Your task to perform on an android device: clear all cookies in the chrome app Image 0: 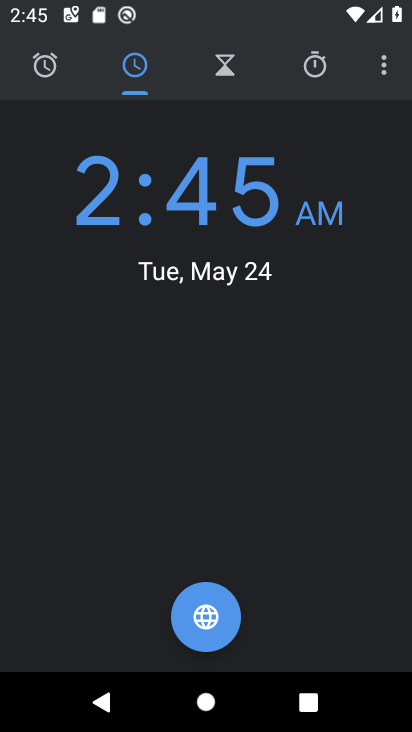
Step 0: press home button
Your task to perform on an android device: clear all cookies in the chrome app Image 1: 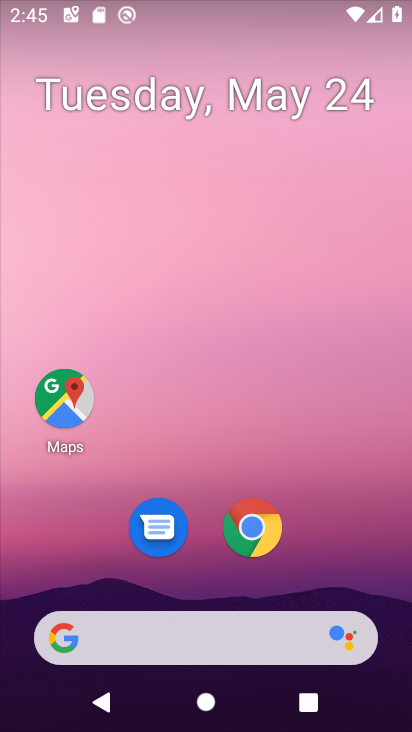
Step 1: click (257, 529)
Your task to perform on an android device: clear all cookies in the chrome app Image 2: 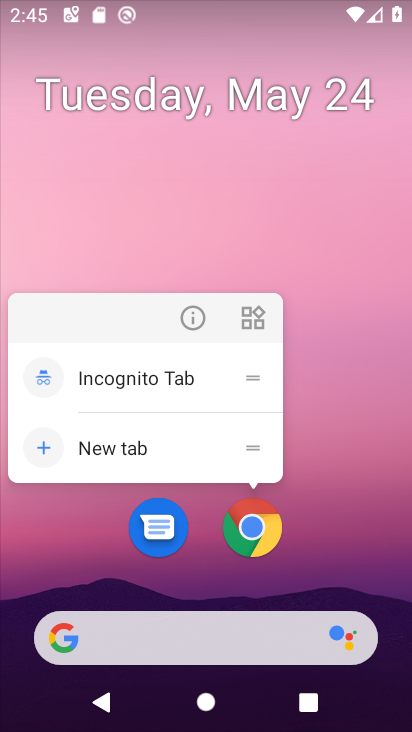
Step 2: click (321, 537)
Your task to perform on an android device: clear all cookies in the chrome app Image 3: 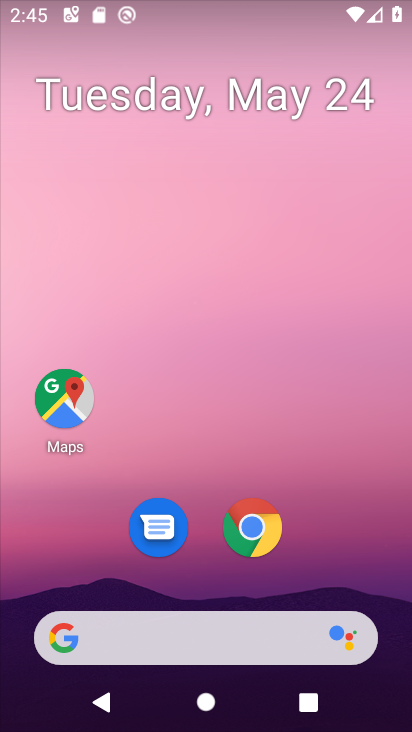
Step 3: click (256, 532)
Your task to perform on an android device: clear all cookies in the chrome app Image 4: 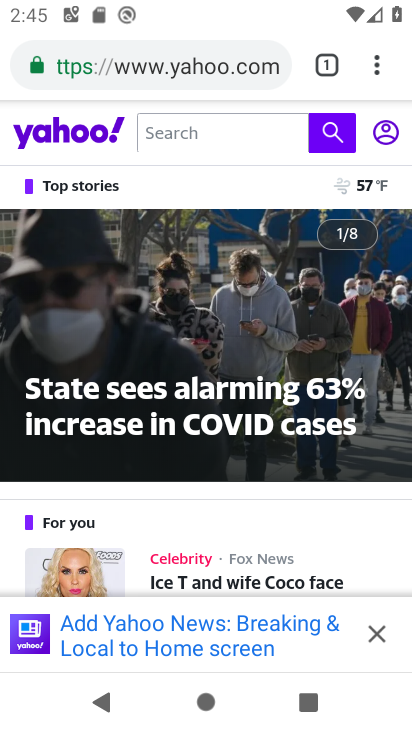
Step 4: click (378, 67)
Your task to perform on an android device: clear all cookies in the chrome app Image 5: 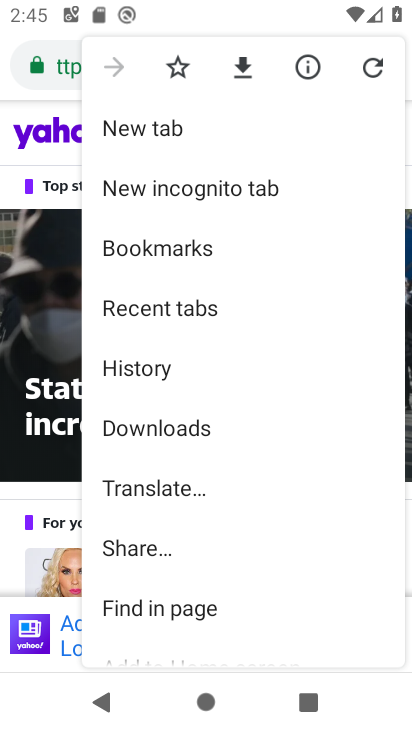
Step 5: drag from (264, 516) to (274, 193)
Your task to perform on an android device: clear all cookies in the chrome app Image 6: 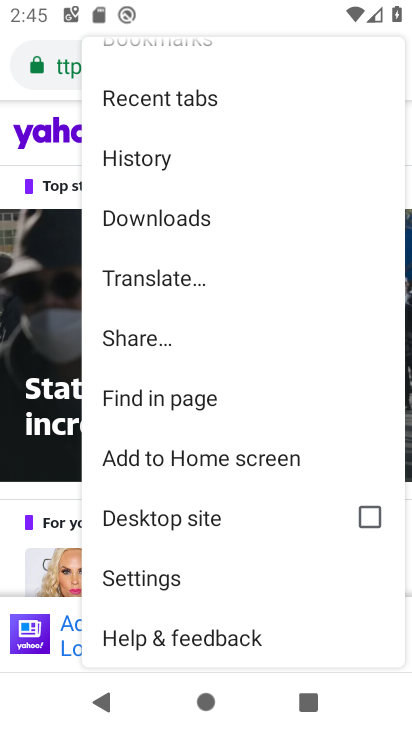
Step 6: click (154, 577)
Your task to perform on an android device: clear all cookies in the chrome app Image 7: 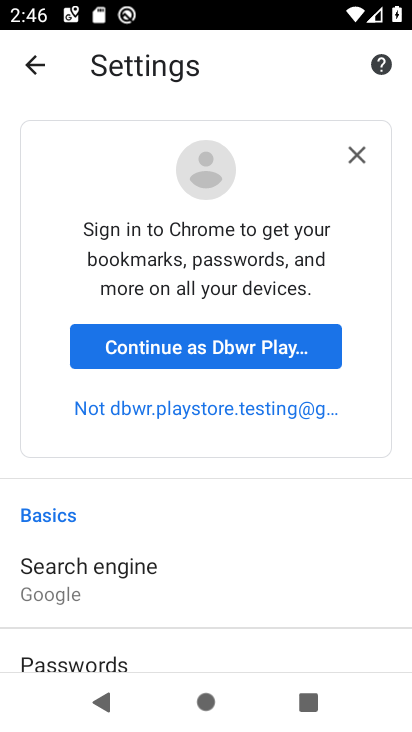
Step 7: drag from (180, 570) to (172, 119)
Your task to perform on an android device: clear all cookies in the chrome app Image 8: 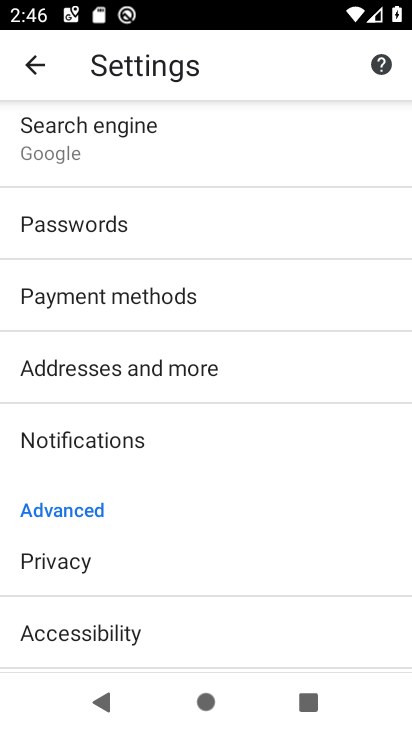
Step 8: click (61, 564)
Your task to perform on an android device: clear all cookies in the chrome app Image 9: 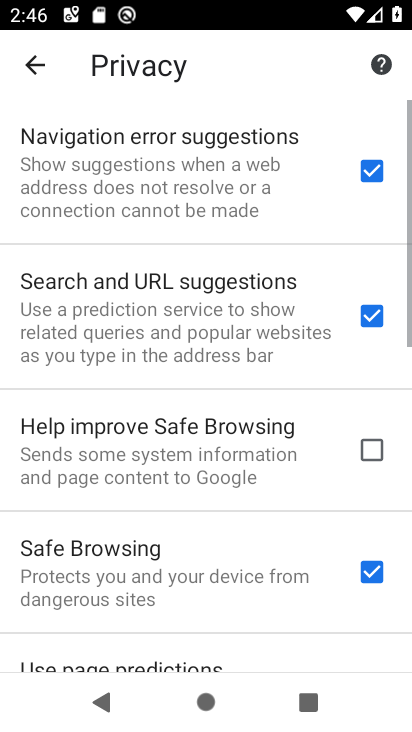
Step 9: drag from (214, 584) to (200, 140)
Your task to perform on an android device: clear all cookies in the chrome app Image 10: 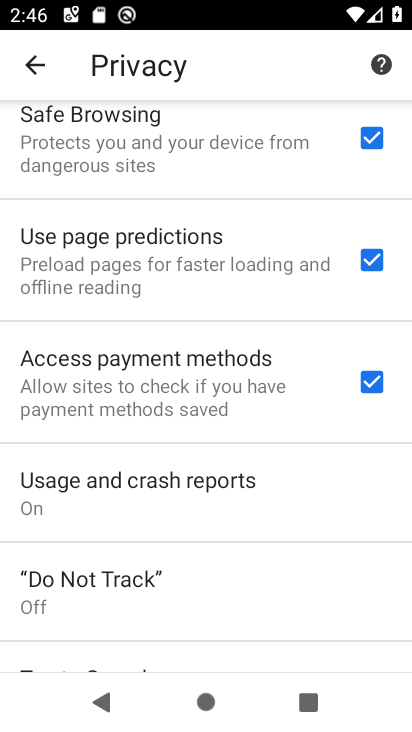
Step 10: drag from (165, 497) to (195, 139)
Your task to perform on an android device: clear all cookies in the chrome app Image 11: 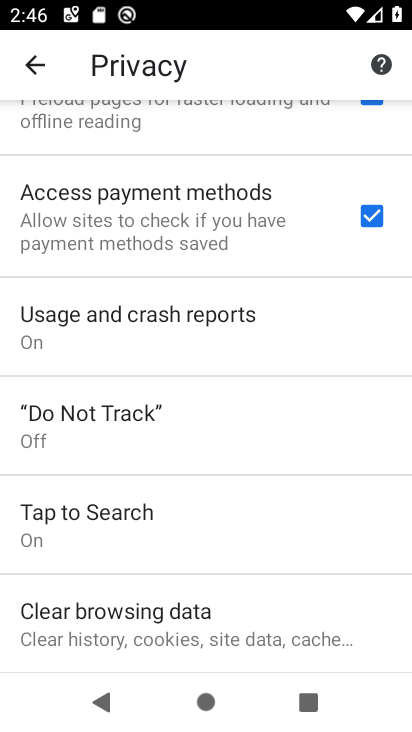
Step 11: click (109, 618)
Your task to perform on an android device: clear all cookies in the chrome app Image 12: 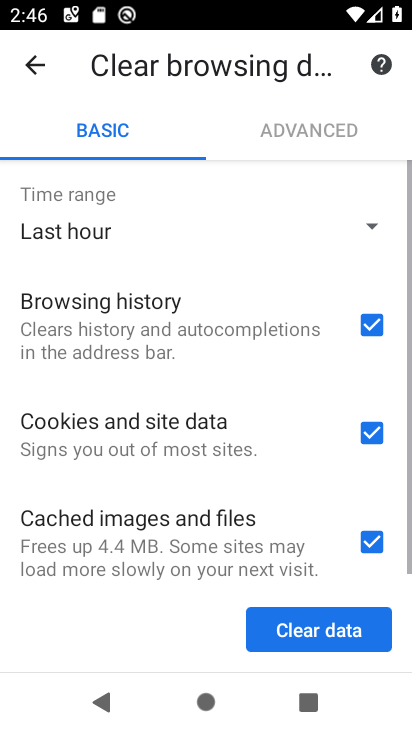
Step 12: click (373, 323)
Your task to perform on an android device: clear all cookies in the chrome app Image 13: 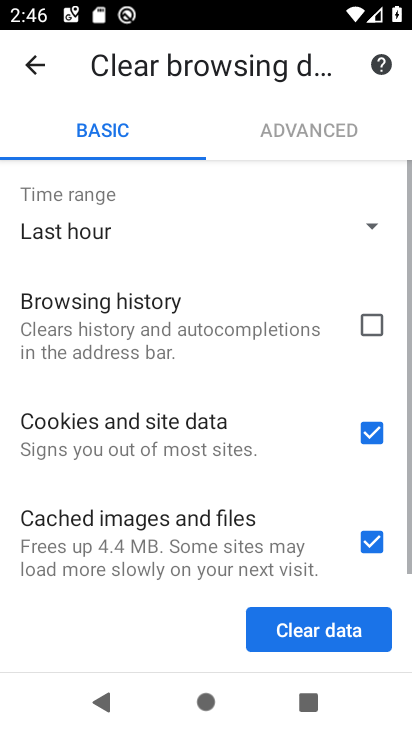
Step 13: click (368, 538)
Your task to perform on an android device: clear all cookies in the chrome app Image 14: 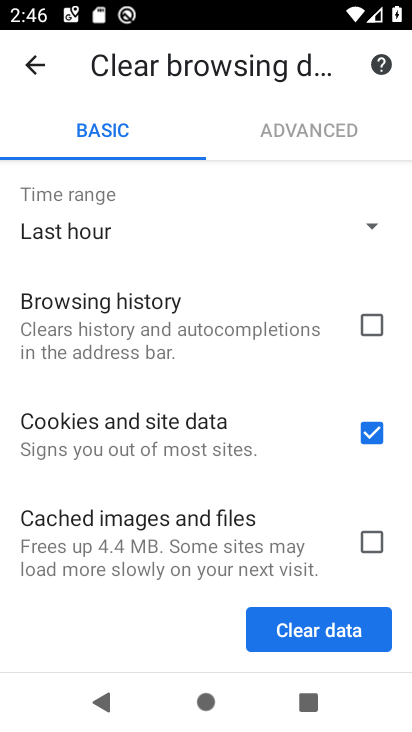
Step 14: drag from (106, 458) to (108, 382)
Your task to perform on an android device: clear all cookies in the chrome app Image 15: 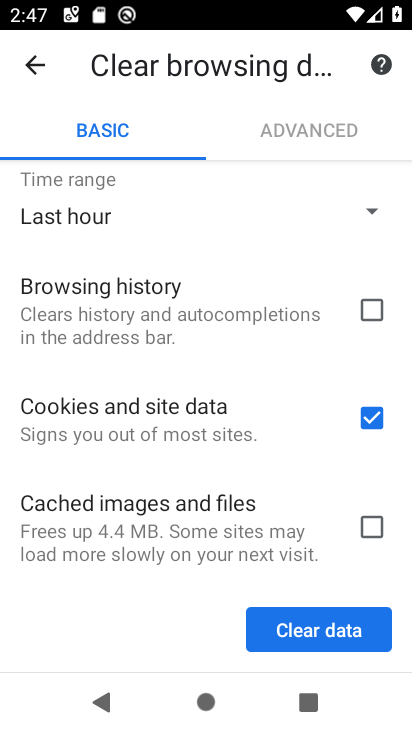
Step 15: click (289, 645)
Your task to perform on an android device: clear all cookies in the chrome app Image 16: 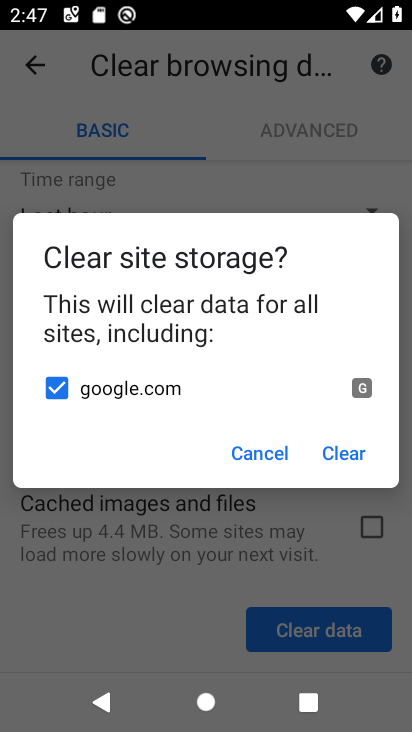
Step 16: click (345, 456)
Your task to perform on an android device: clear all cookies in the chrome app Image 17: 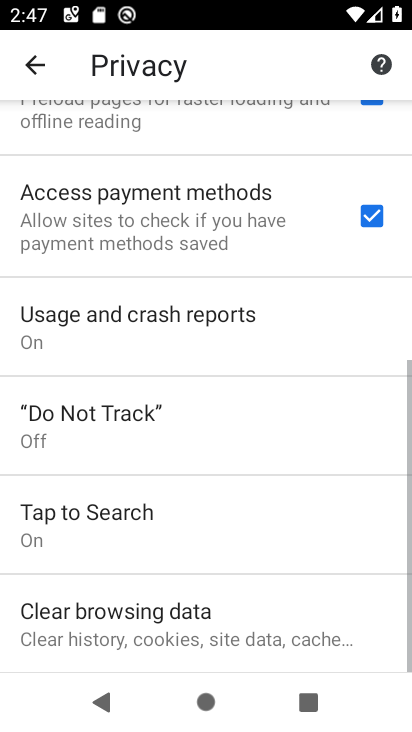
Step 17: task complete